Your task to perform on an android device: open a bookmark in the chrome app Image 0: 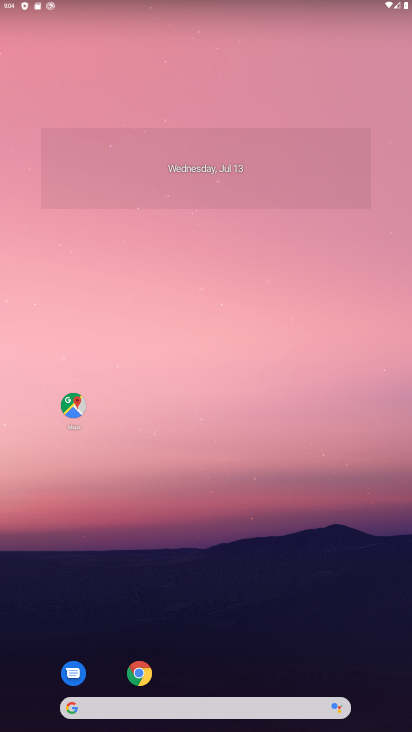
Step 0: click (143, 676)
Your task to perform on an android device: open a bookmark in the chrome app Image 1: 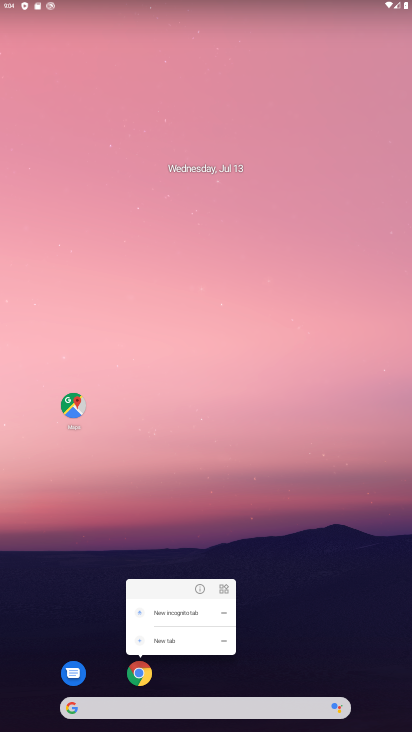
Step 1: click (143, 676)
Your task to perform on an android device: open a bookmark in the chrome app Image 2: 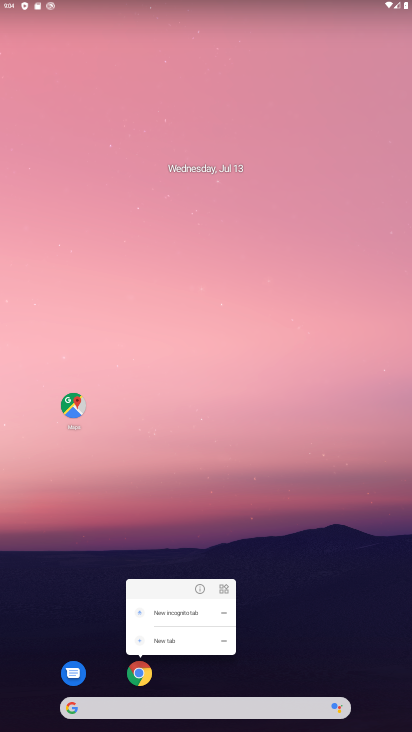
Step 2: click (133, 671)
Your task to perform on an android device: open a bookmark in the chrome app Image 3: 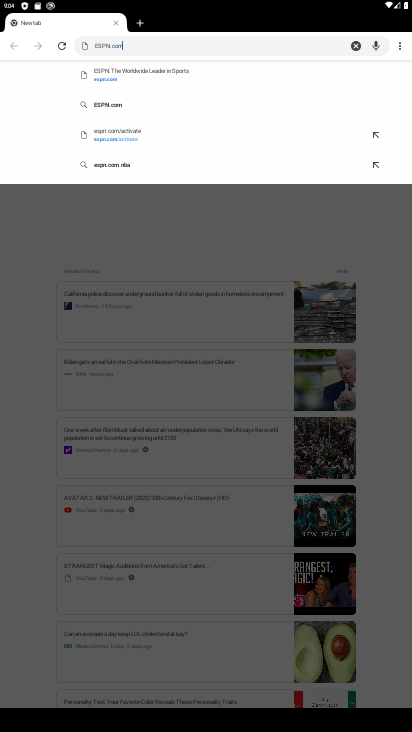
Step 3: click (346, 277)
Your task to perform on an android device: open a bookmark in the chrome app Image 4: 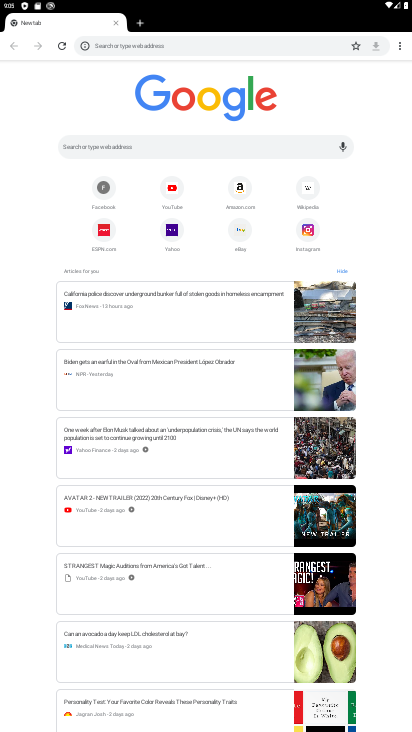
Step 4: click (403, 45)
Your task to perform on an android device: open a bookmark in the chrome app Image 5: 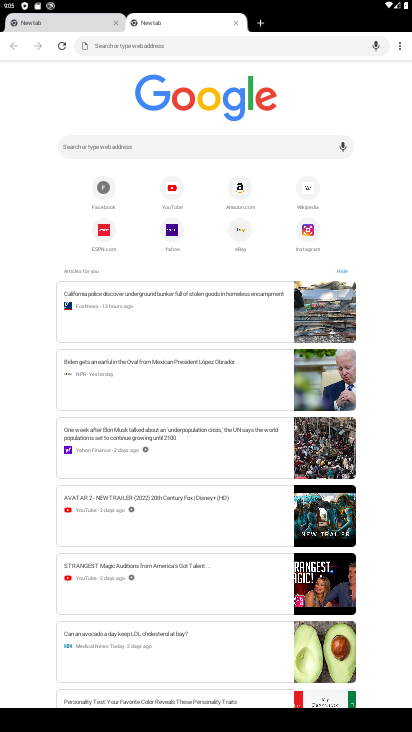
Step 5: click (399, 51)
Your task to perform on an android device: open a bookmark in the chrome app Image 6: 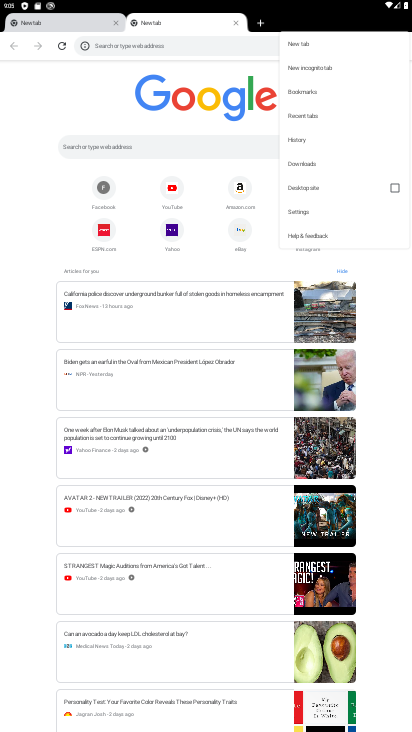
Step 6: click (326, 93)
Your task to perform on an android device: open a bookmark in the chrome app Image 7: 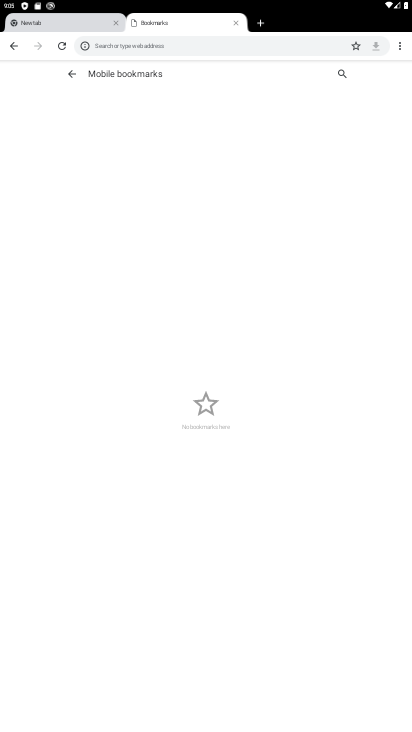
Step 7: task complete